Your task to perform on an android device: Turn off the flashlight Image 0: 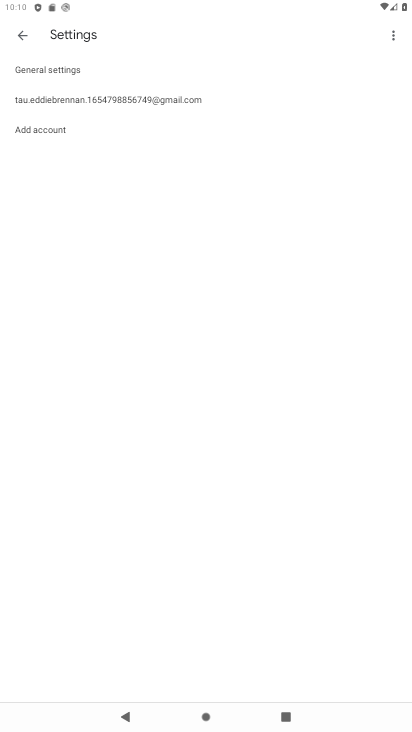
Step 0: task complete